Your task to perform on an android device: toggle show notifications on the lock screen Image 0: 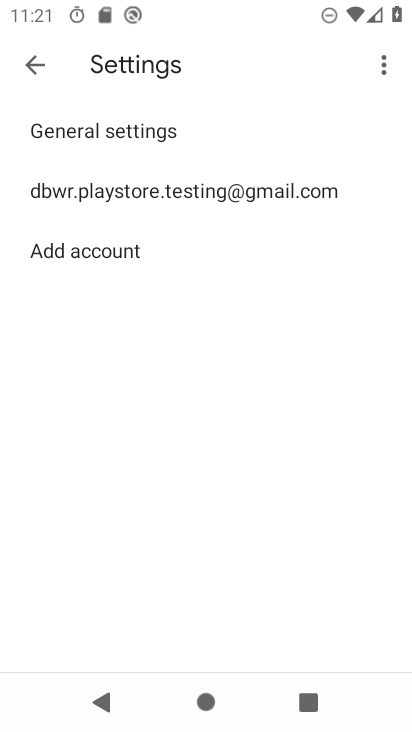
Step 0: press home button
Your task to perform on an android device: toggle show notifications on the lock screen Image 1: 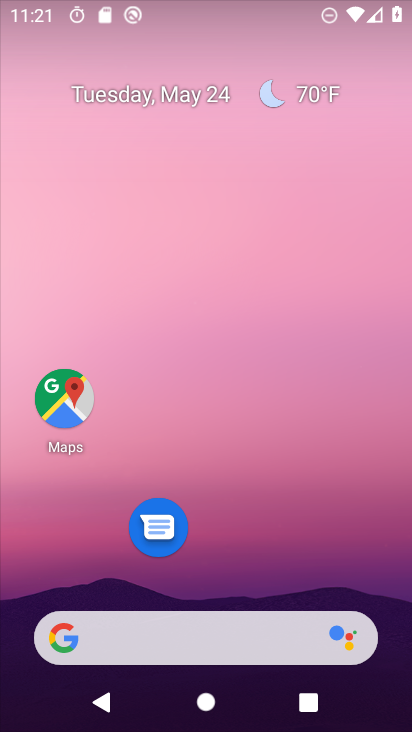
Step 1: drag from (254, 496) to (287, 100)
Your task to perform on an android device: toggle show notifications on the lock screen Image 2: 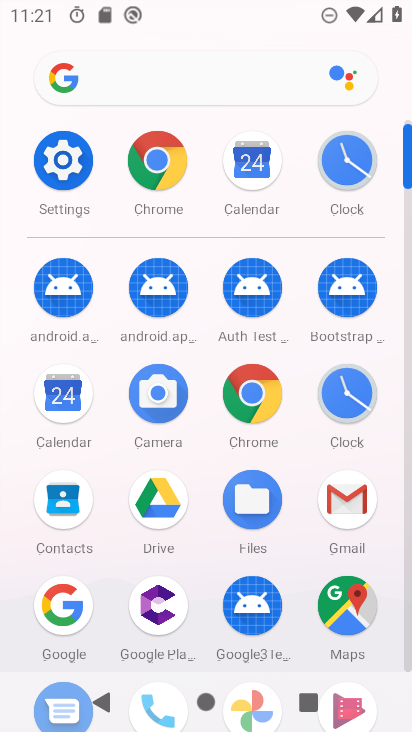
Step 2: click (55, 159)
Your task to perform on an android device: toggle show notifications on the lock screen Image 3: 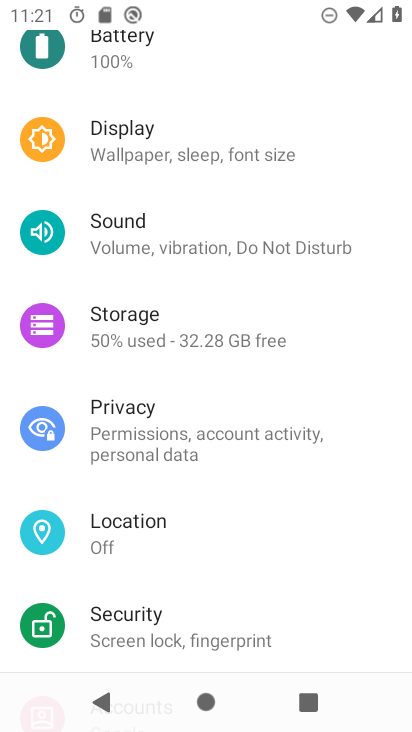
Step 3: drag from (211, 133) to (226, 413)
Your task to perform on an android device: toggle show notifications on the lock screen Image 4: 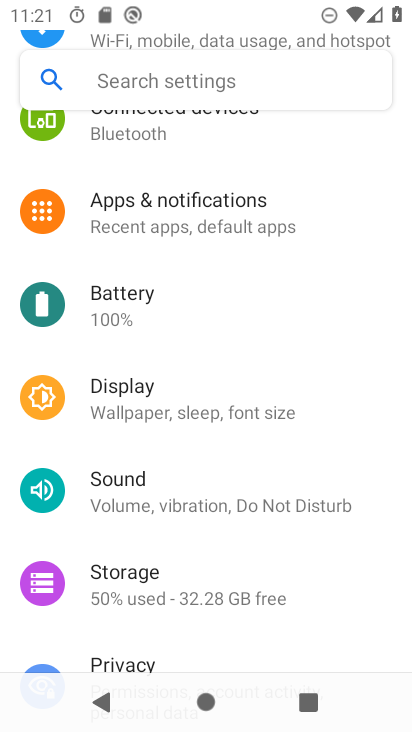
Step 4: click (189, 224)
Your task to perform on an android device: toggle show notifications on the lock screen Image 5: 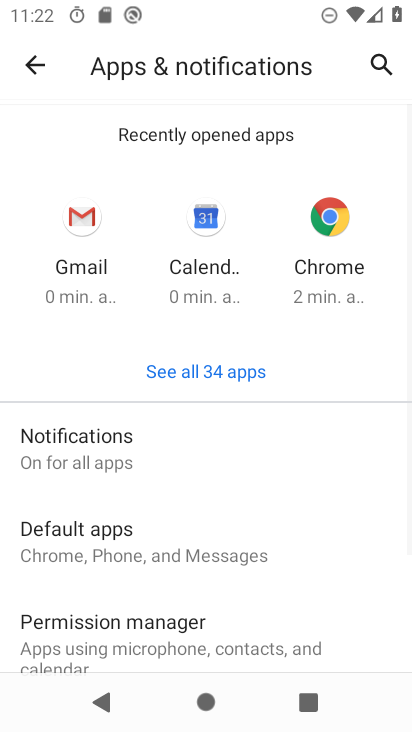
Step 5: click (124, 464)
Your task to perform on an android device: toggle show notifications on the lock screen Image 6: 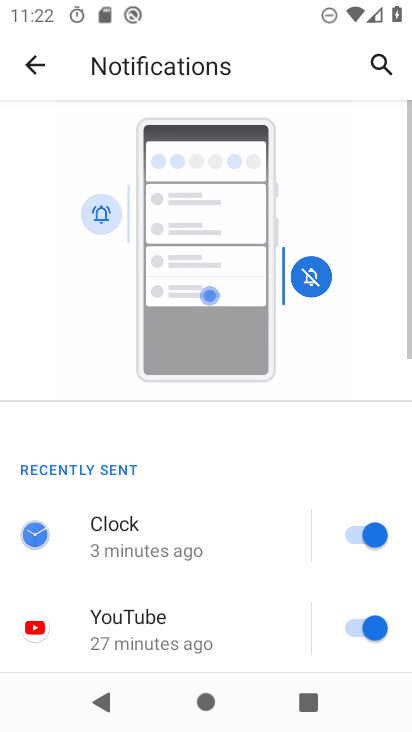
Step 6: drag from (213, 545) to (209, 113)
Your task to perform on an android device: toggle show notifications on the lock screen Image 7: 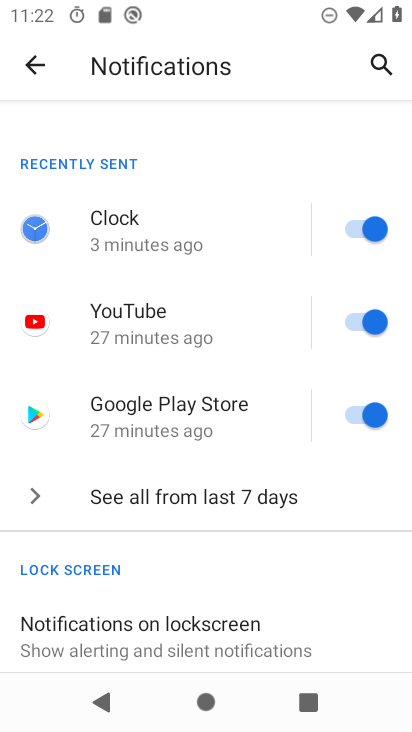
Step 7: drag from (183, 581) to (180, 372)
Your task to perform on an android device: toggle show notifications on the lock screen Image 8: 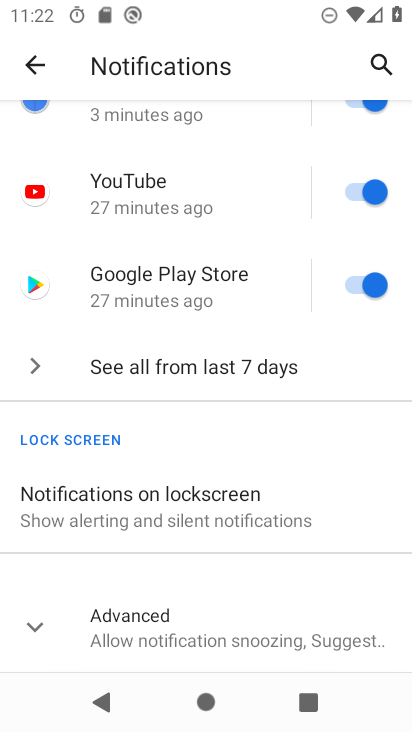
Step 8: click (190, 515)
Your task to perform on an android device: toggle show notifications on the lock screen Image 9: 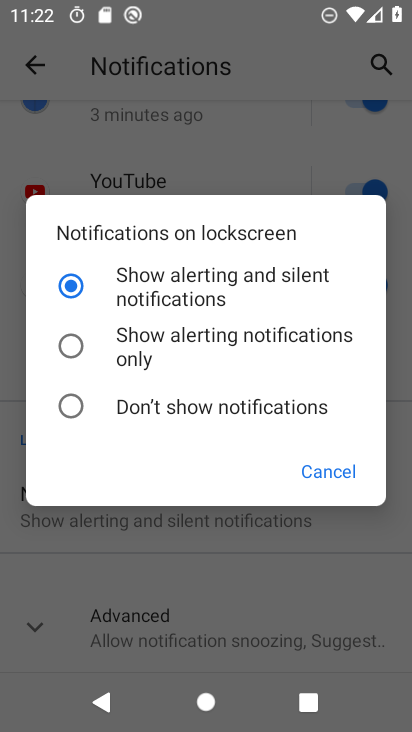
Step 9: click (75, 414)
Your task to perform on an android device: toggle show notifications on the lock screen Image 10: 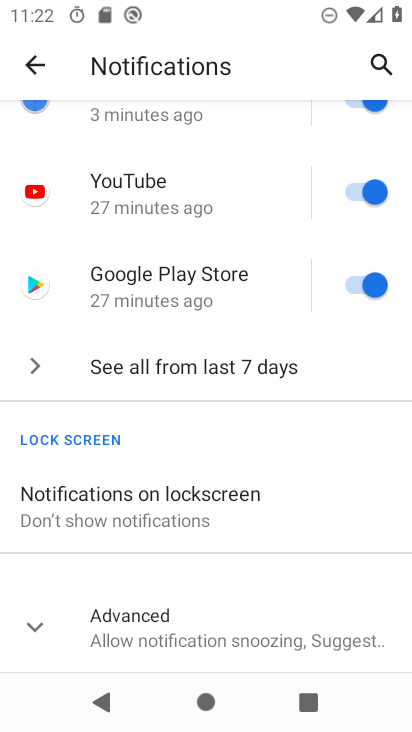
Step 10: task complete